Your task to perform on an android device: Open Chrome and go to settings Image 0: 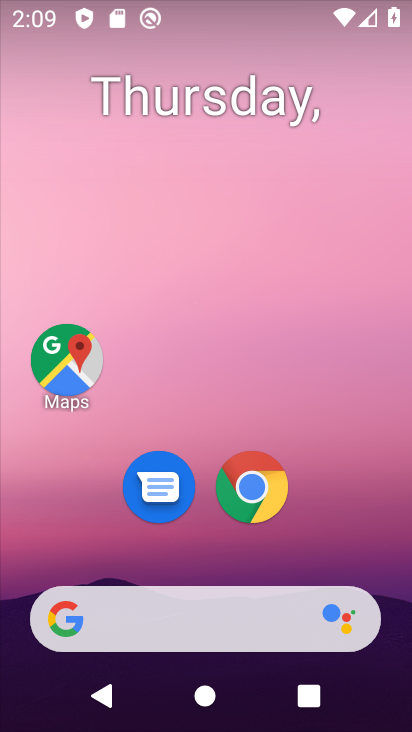
Step 0: click (247, 479)
Your task to perform on an android device: Open Chrome and go to settings Image 1: 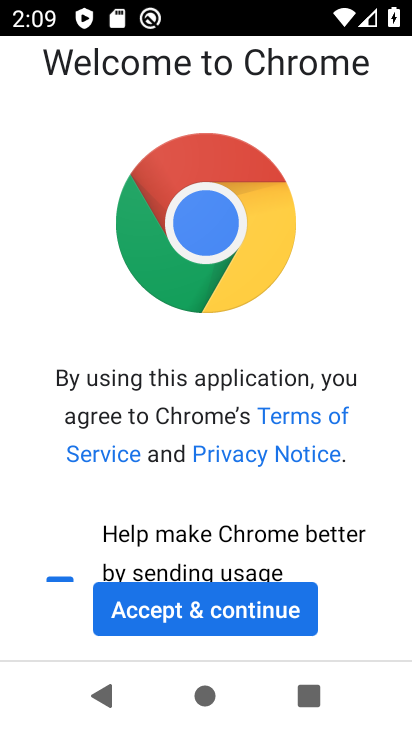
Step 1: click (135, 601)
Your task to perform on an android device: Open Chrome and go to settings Image 2: 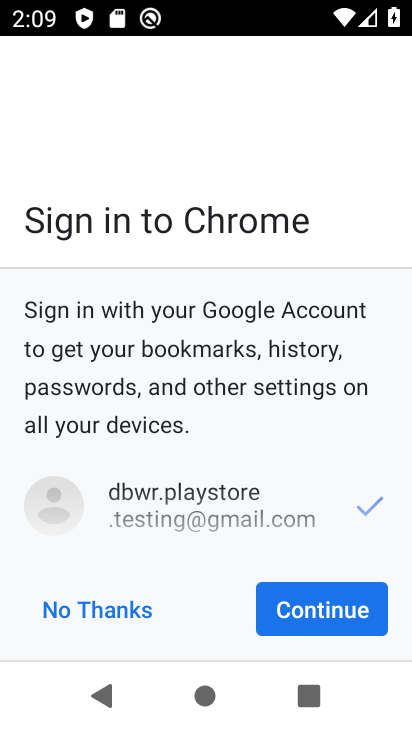
Step 2: click (277, 606)
Your task to perform on an android device: Open Chrome and go to settings Image 3: 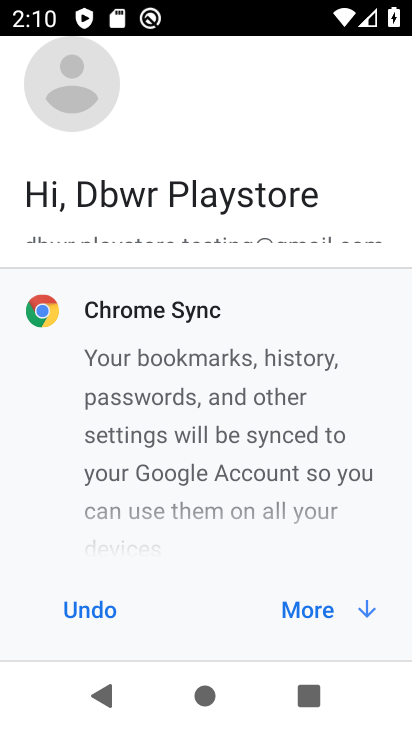
Step 3: click (305, 602)
Your task to perform on an android device: Open Chrome and go to settings Image 4: 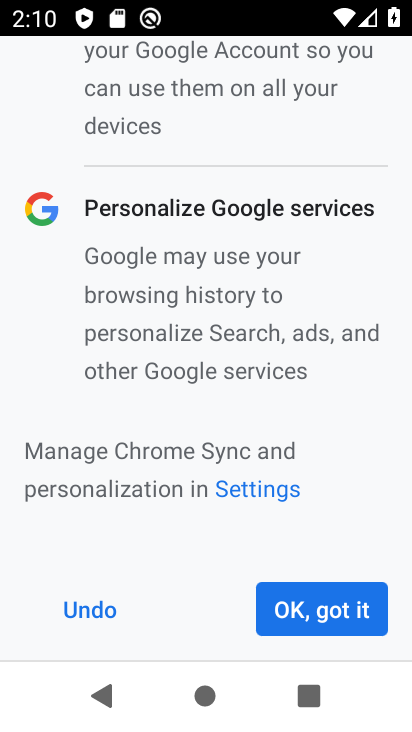
Step 4: click (290, 612)
Your task to perform on an android device: Open Chrome and go to settings Image 5: 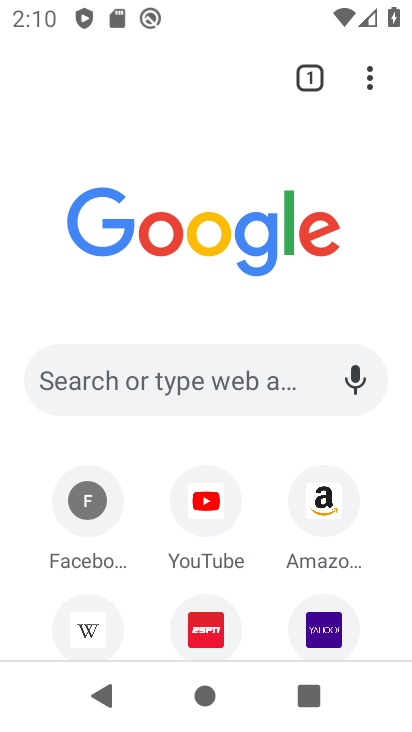
Step 5: click (363, 57)
Your task to perform on an android device: Open Chrome and go to settings Image 6: 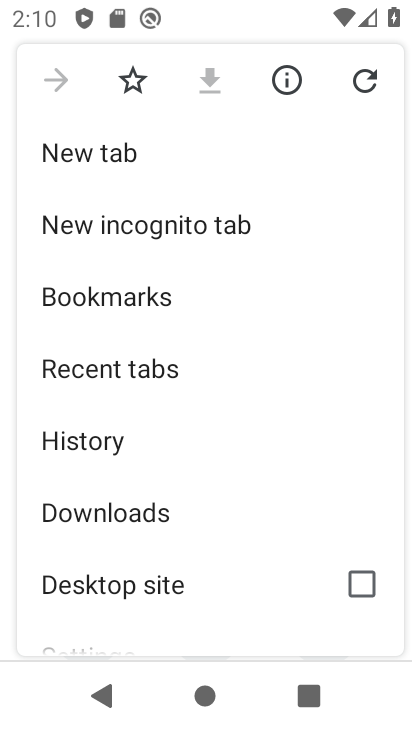
Step 6: drag from (178, 472) to (208, 163)
Your task to perform on an android device: Open Chrome and go to settings Image 7: 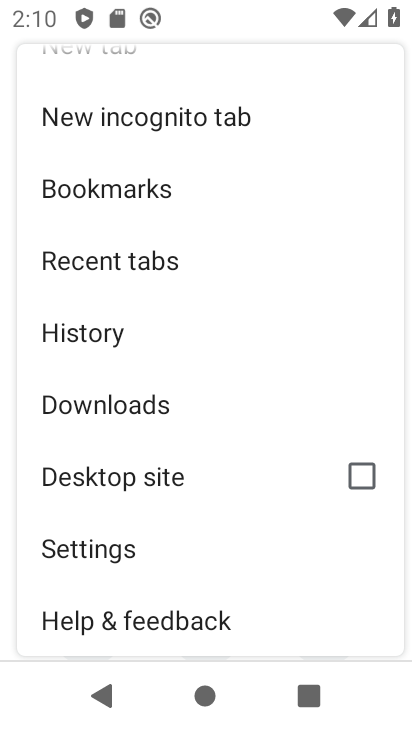
Step 7: click (155, 551)
Your task to perform on an android device: Open Chrome and go to settings Image 8: 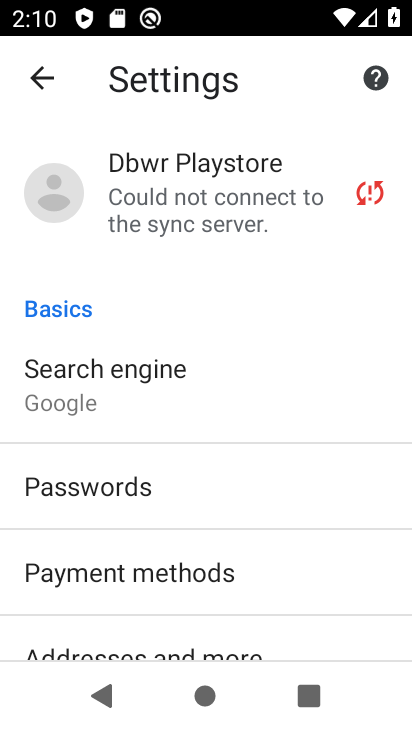
Step 8: task complete